Your task to perform on an android device: check battery use Image 0: 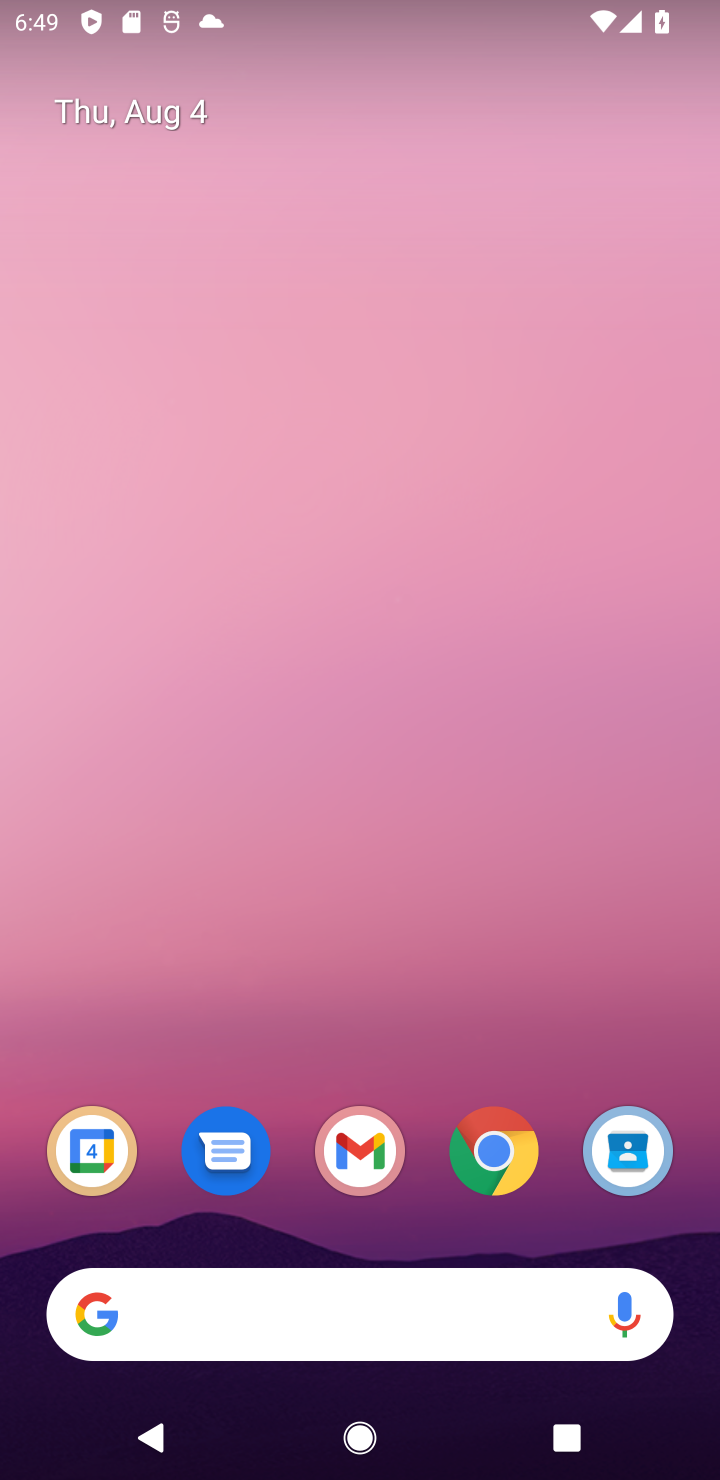
Step 0: drag from (398, 1200) to (395, 156)
Your task to perform on an android device: check battery use Image 1: 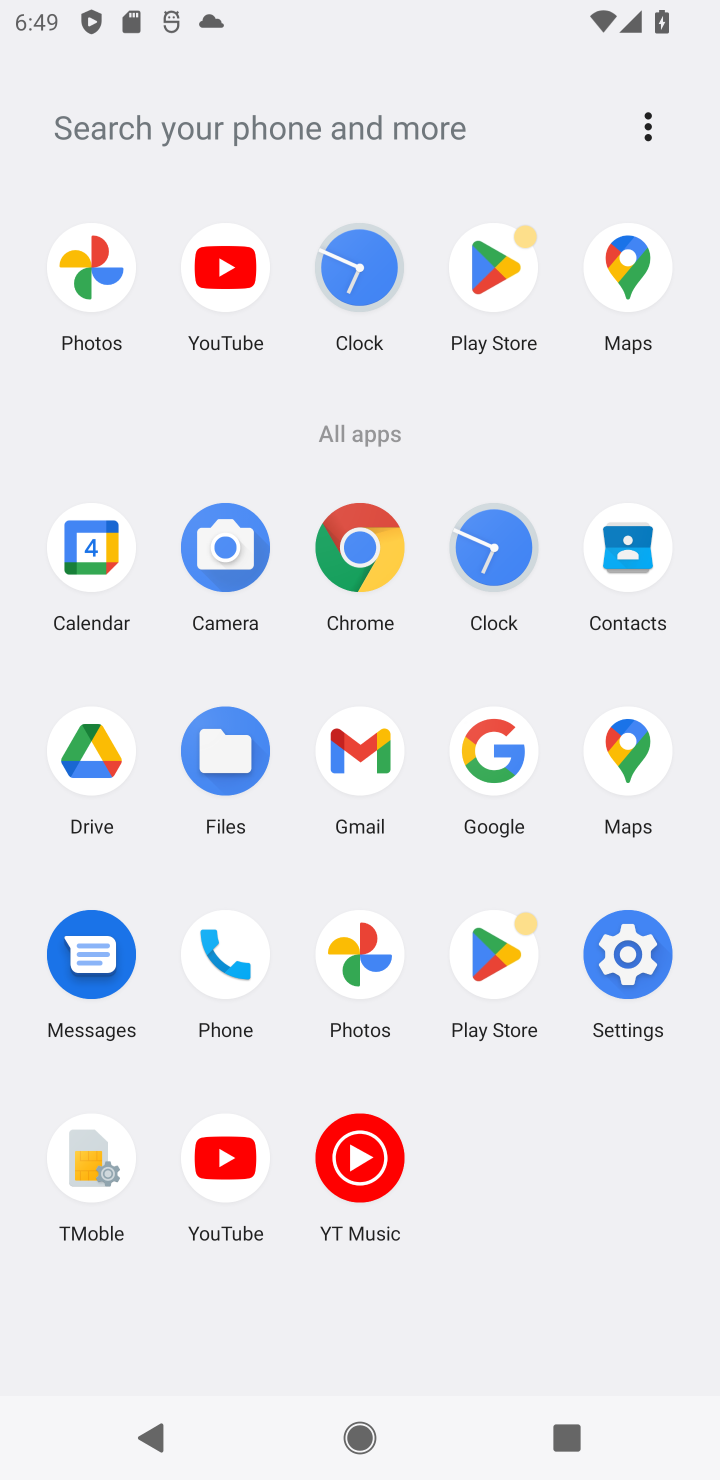
Step 1: click (623, 980)
Your task to perform on an android device: check battery use Image 2: 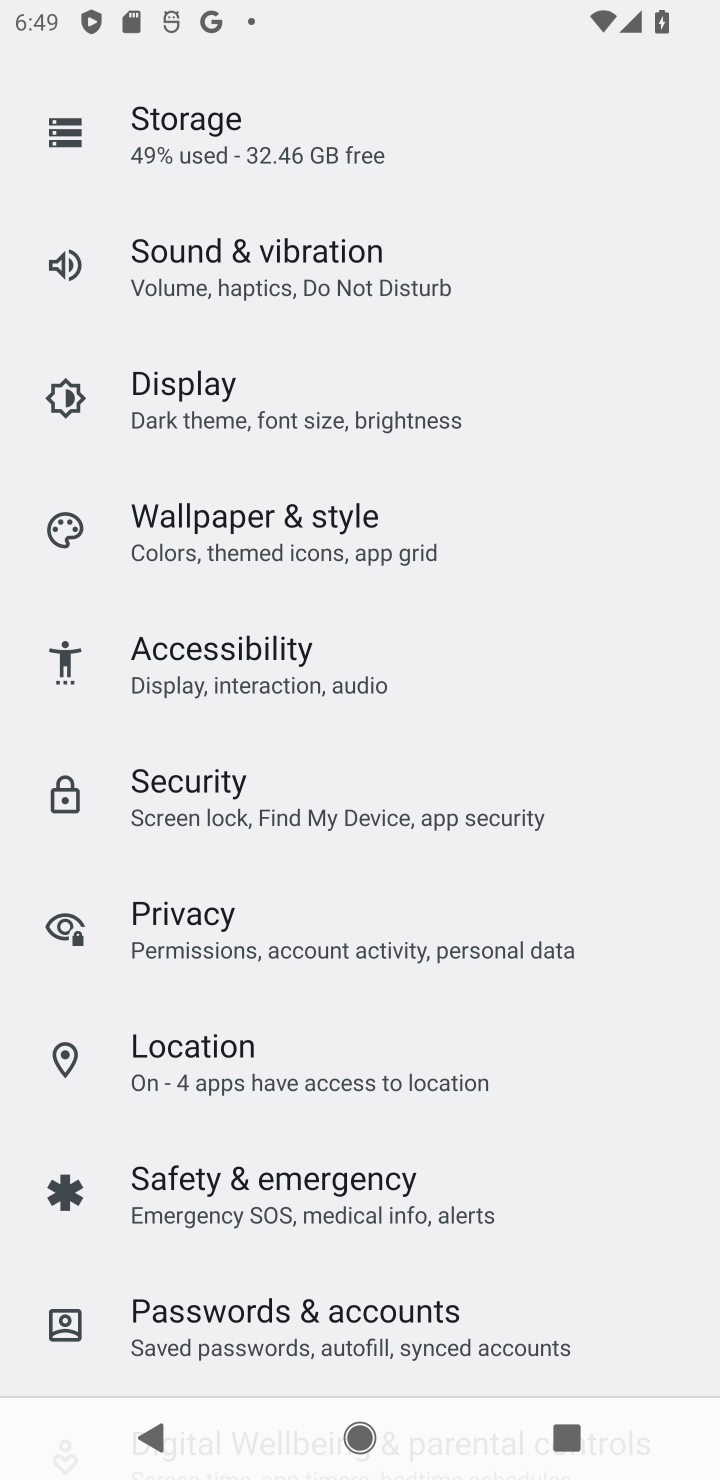
Step 2: drag from (339, 346) to (366, 718)
Your task to perform on an android device: check battery use Image 3: 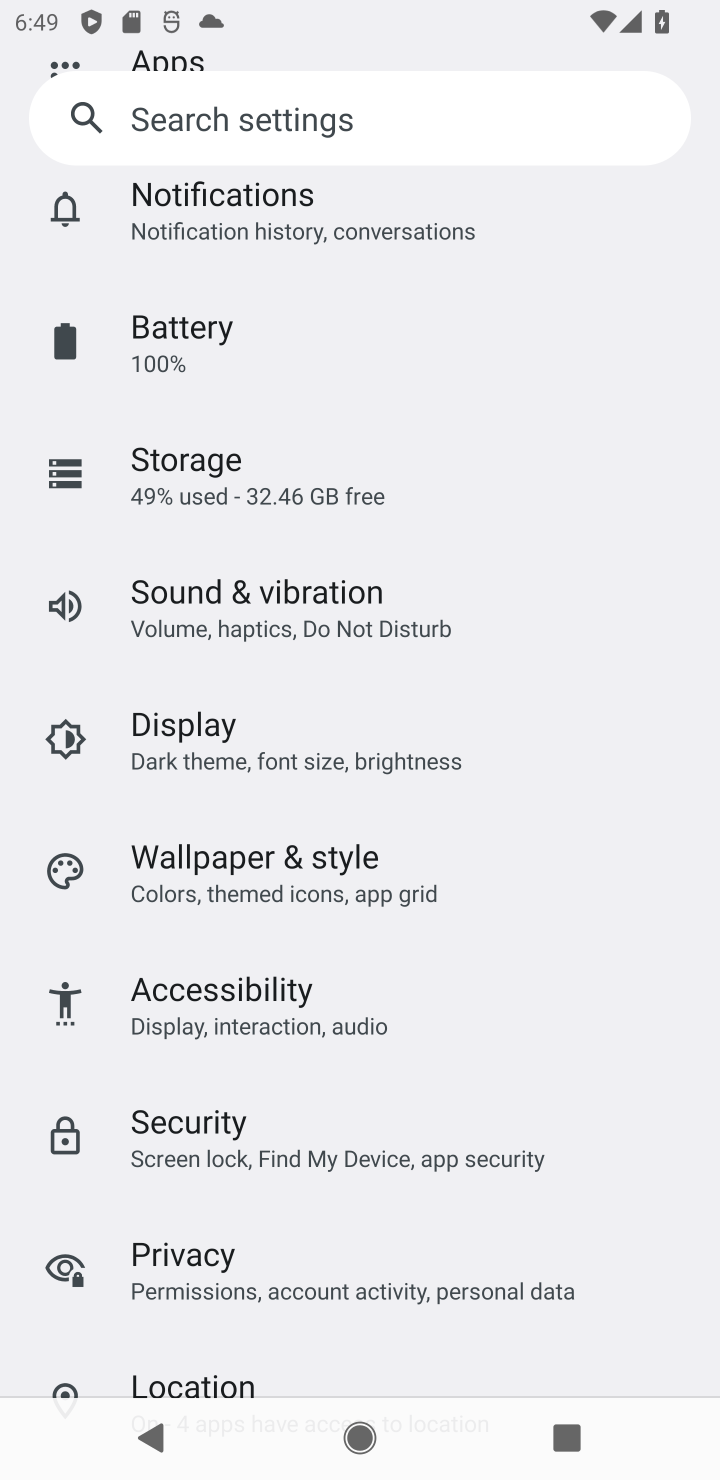
Step 3: click (212, 339)
Your task to perform on an android device: check battery use Image 4: 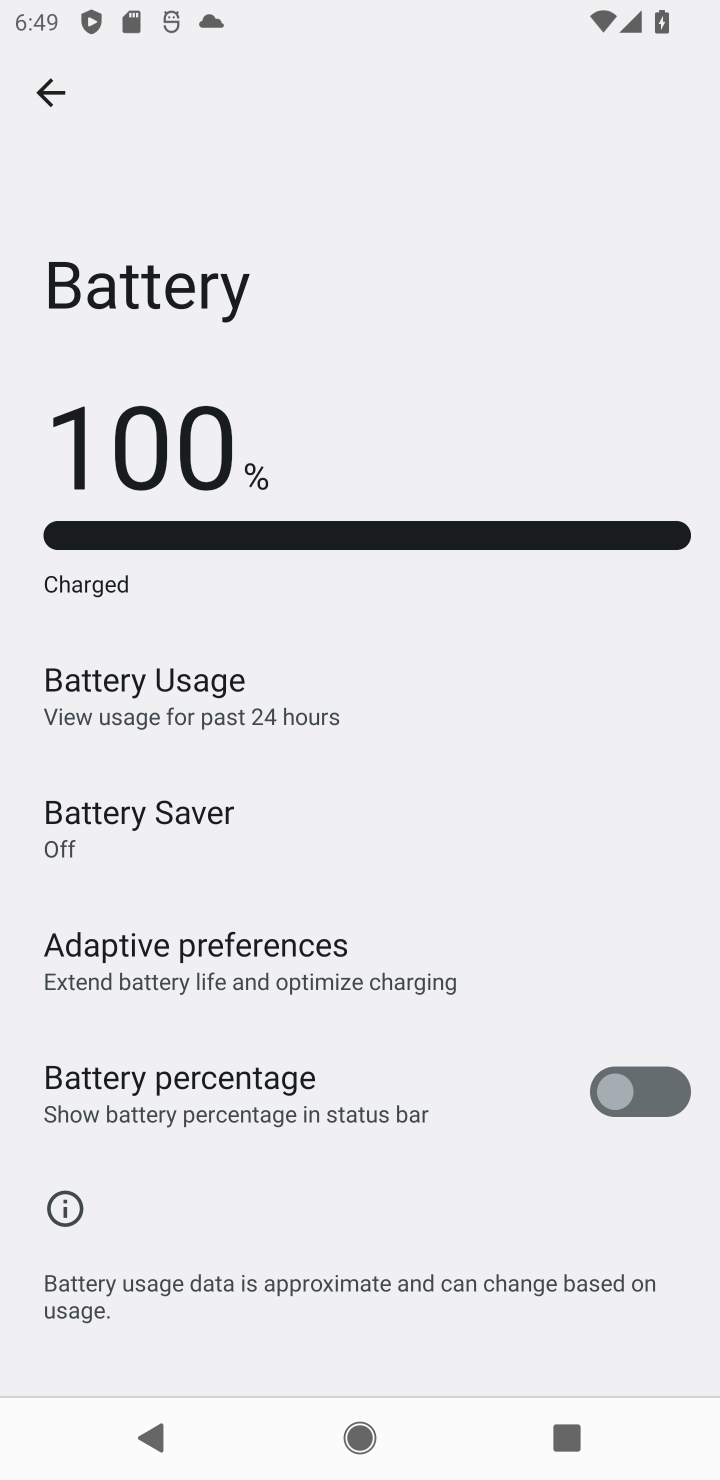
Step 4: drag from (276, 1037) to (248, 749)
Your task to perform on an android device: check battery use Image 5: 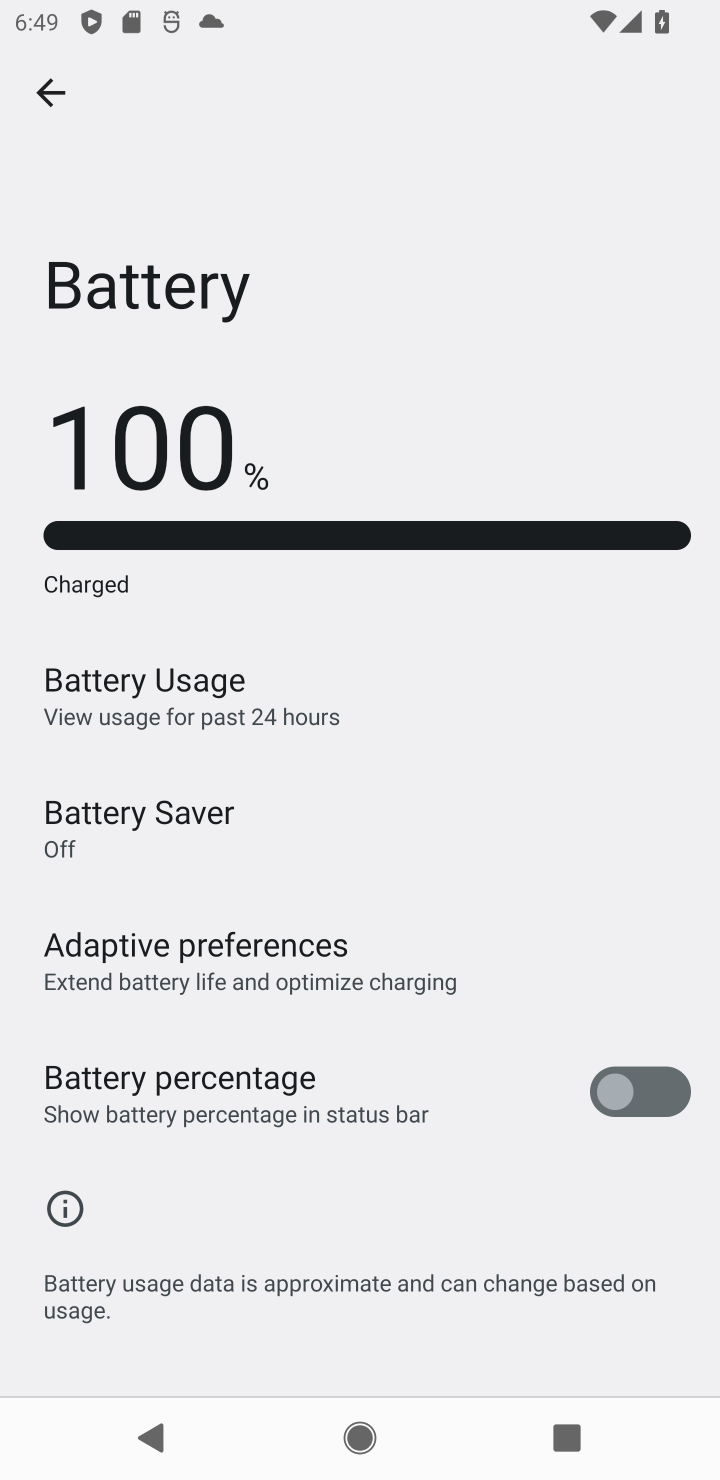
Step 5: click (258, 712)
Your task to perform on an android device: check battery use Image 6: 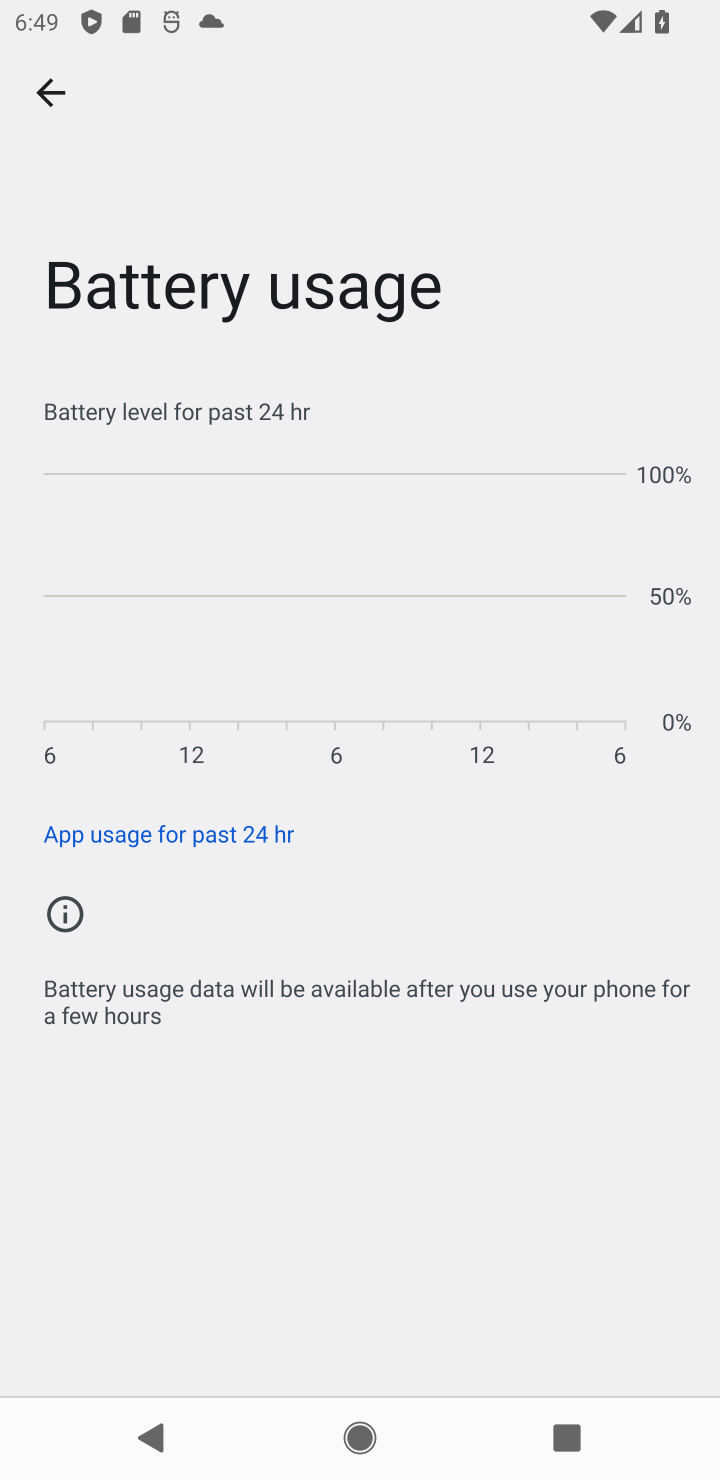
Step 6: task complete